Your task to perform on an android device: Is it going to rain tomorrow? Image 0: 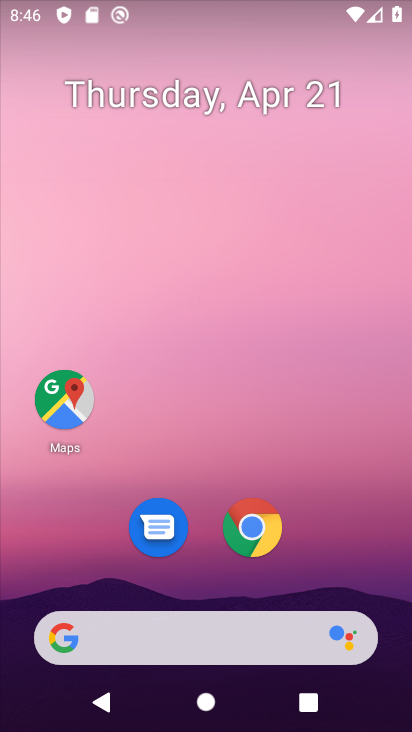
Step 0: drag from (212, 516) to (256, 318)
Your task to perform on an android device: Is it going to rain tomorrow? Image 1: 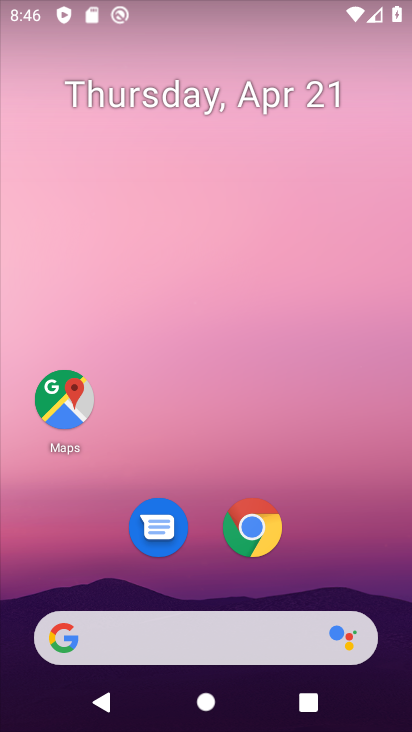
Step 1: drag from (215, 564) to (232, 206)
Your task to perform on an android device: Is it going to rain tomorrow? Image 2: 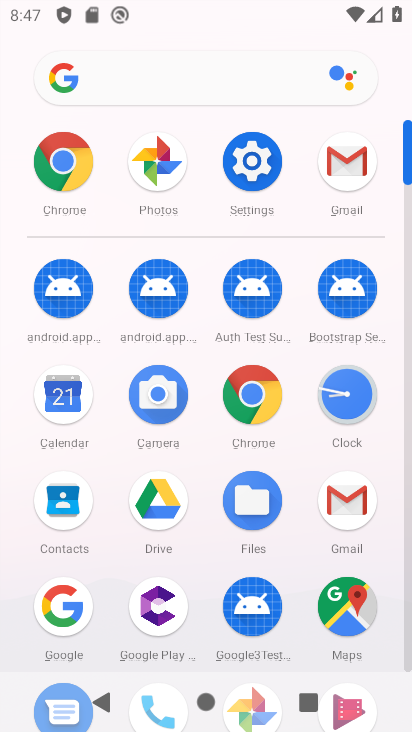
Step 2: click (56, 629)
Your task to perform on an android device: Is it going to rain tomorrow? Image 3: 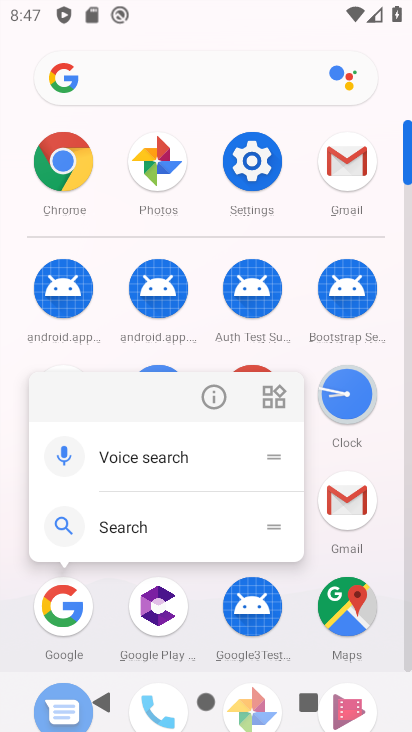
Step 3: click (57, 630)
Your task to perform on an android device: Is it going to rain tomorrow? Image 4: 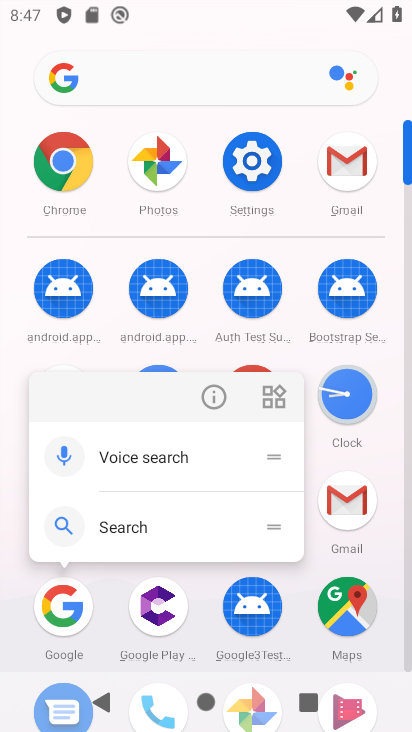
Step 4: click (41, 606)
Your task to perform on an android device: Is it going to rain tomorrow? Image 5: 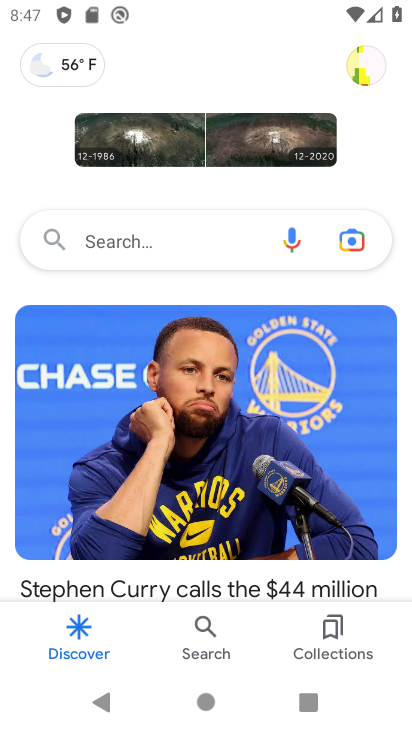
Step 5: click (151, 241)
Your task to perform on an android device: Is it going to rain tomorrow? Image 6: 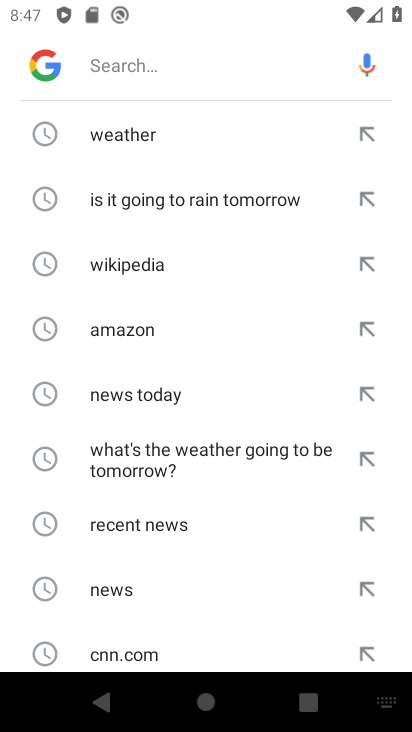
Step 6: click (170, 140)
Your task to perform on an android device: Is it going to rain tomorrow? Image 7: 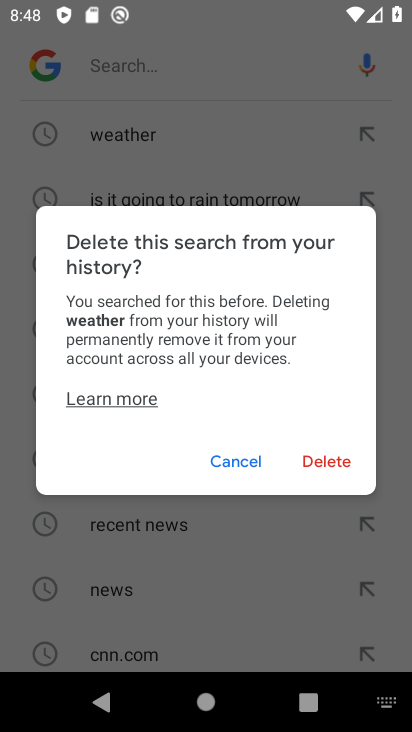
Step 7: click (239, 468)
Your task to perform on an android device: Is it going to rain tomorrow? Image 8: 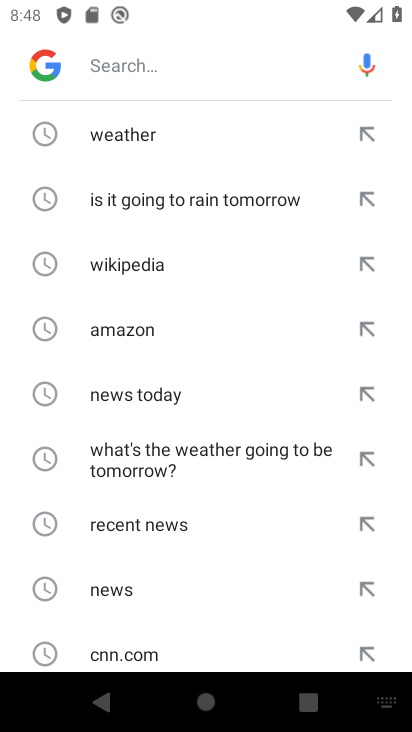
Step 8: click (373, 142)
Your task to perform on an android device: Is it going to rain tomorrow? Image 9: 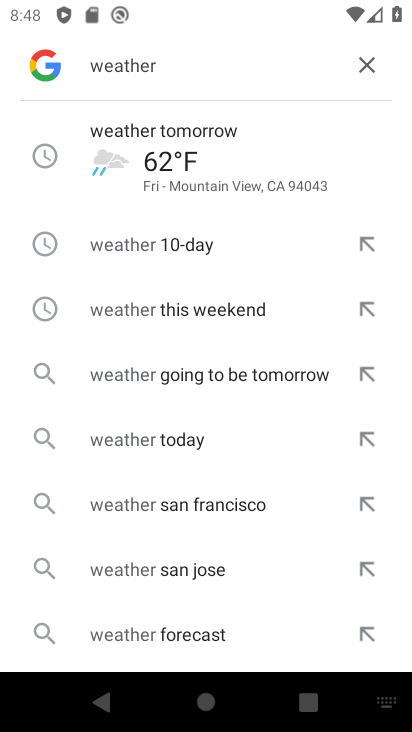
Step 9: click (190, 185)
Your task to perform on an android device: Is it going to rain tomorrow? Image 10: 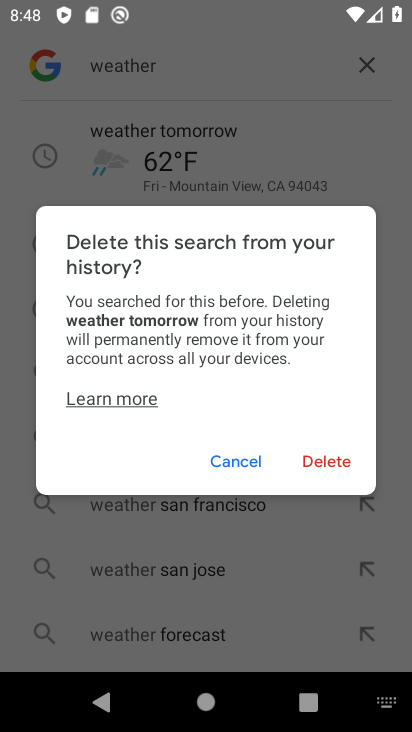
Step 10: task complete